Your task to perform on an android device: uninstall "Facebook Lite" Image 0: 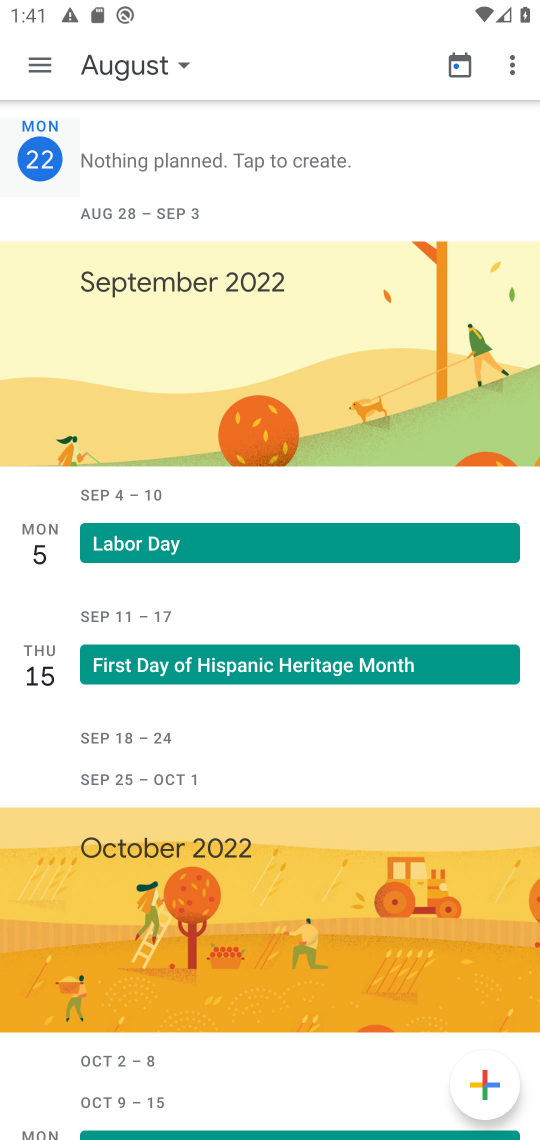
Step 0: press home button
Your task to perform on an android device: uninstall "Facebook Lite" Image 1: 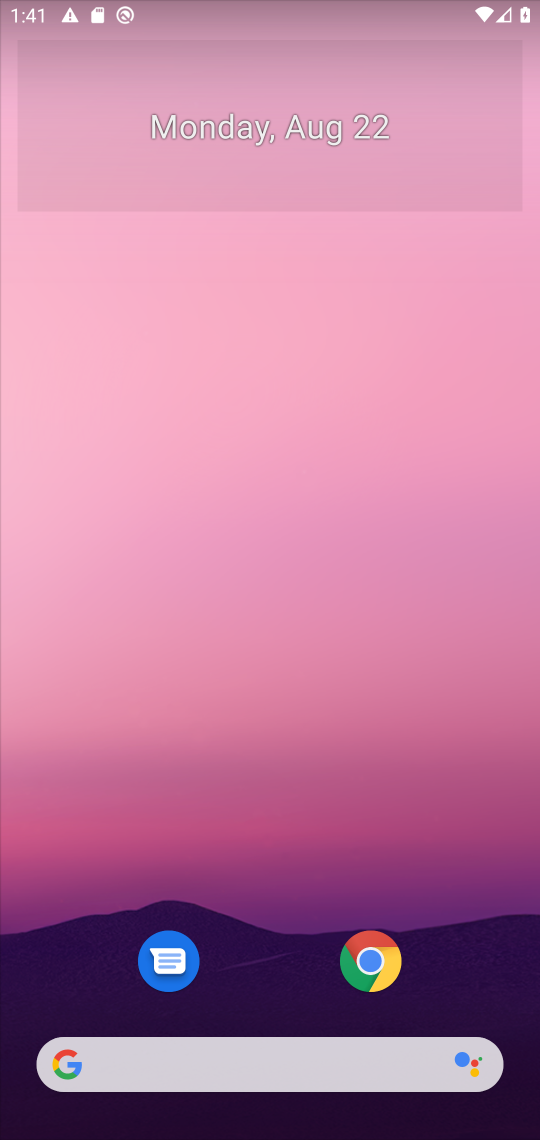
Step 1: drag from (471, 961) to (480, 127)
Your task to perform on an android device: uninstall "Facebook Lite" Image 2: 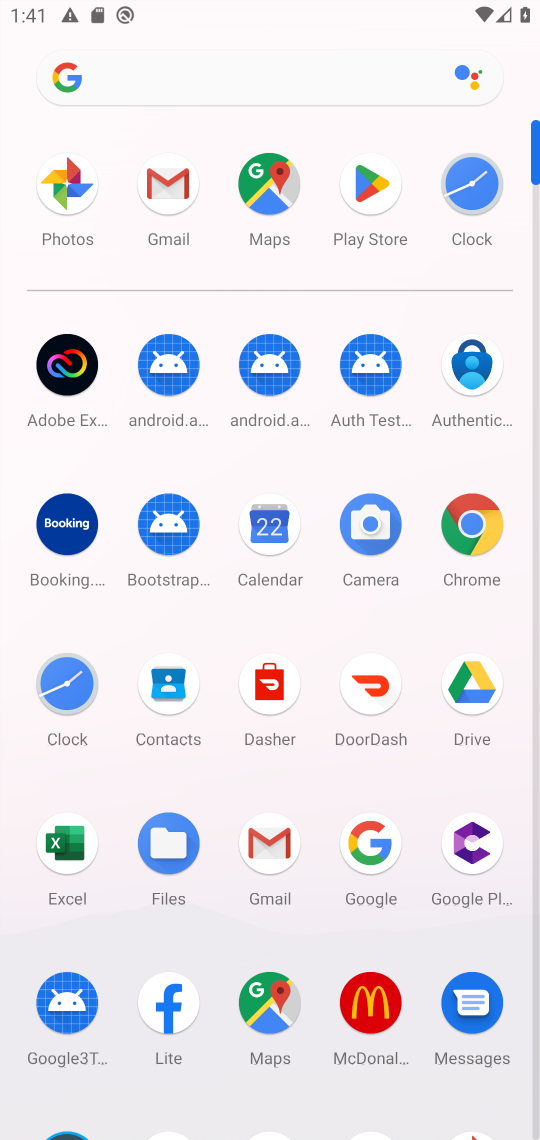
Step 2: click (369, 188)
Your task to perform on an android device: uninstall "Facebook Lite" Image 3: 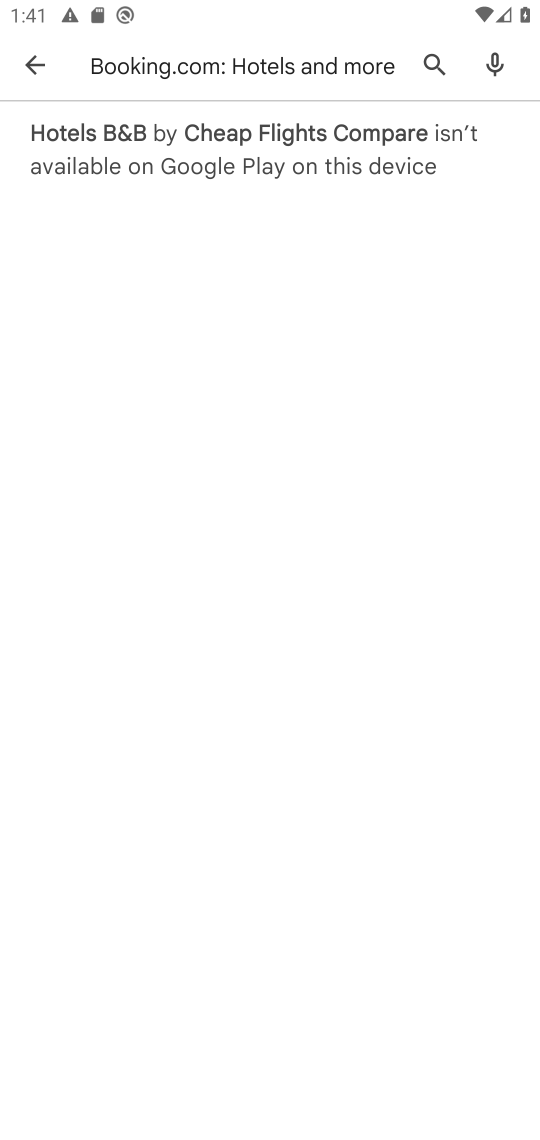
Step 3: press back button
Your task to perform on an android device: uninstall "Facebook Lite" Image 4: 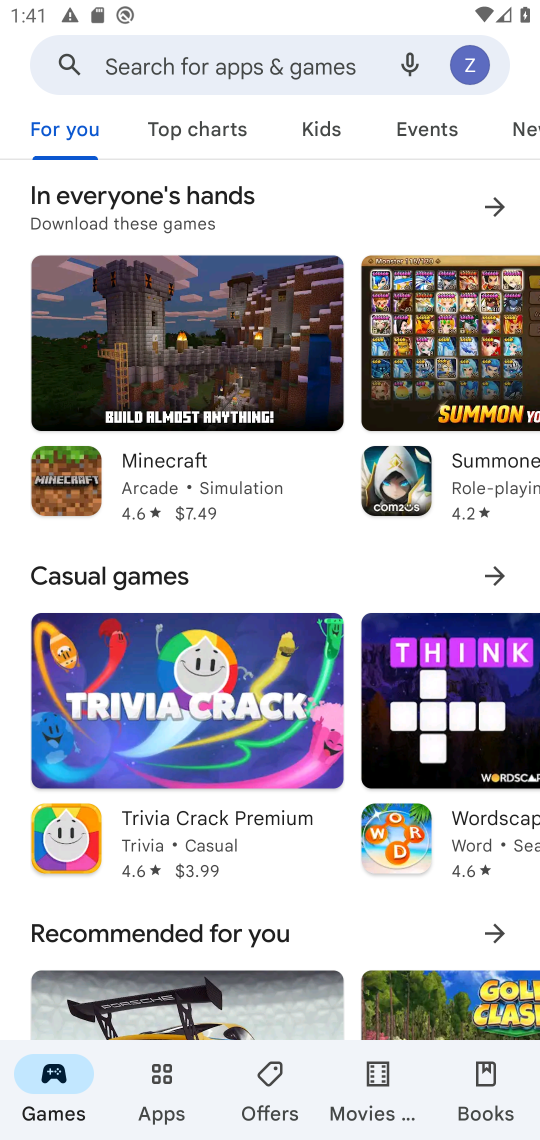
Step 4: click (296, 66)
Your task to perform on an android device: uninstall "Facebook Lite" Image 5: 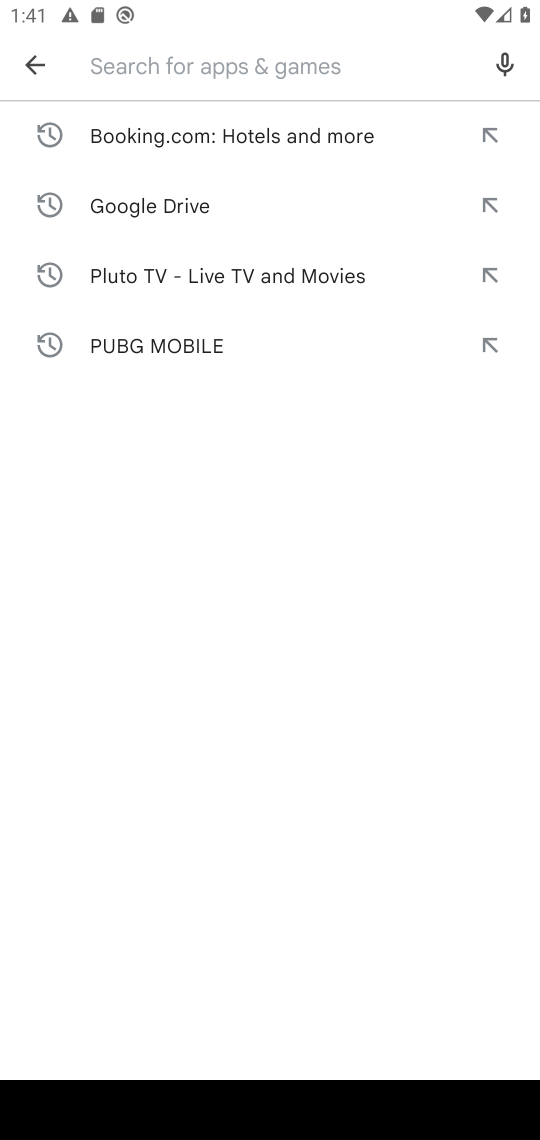
Step 5: type "facebook lite"
Your task to perform on an android device: uninstall "Facebook Lite" Image 6: 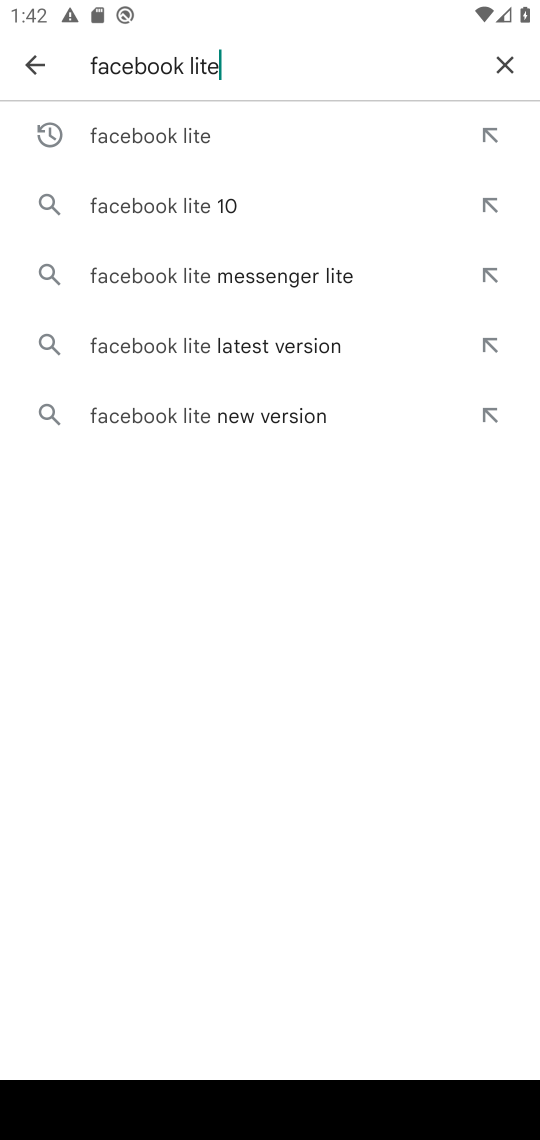
Step 6: click (225, 142)
Your task to perform on an android device: uninstall "Facebook Lite" Image 7: 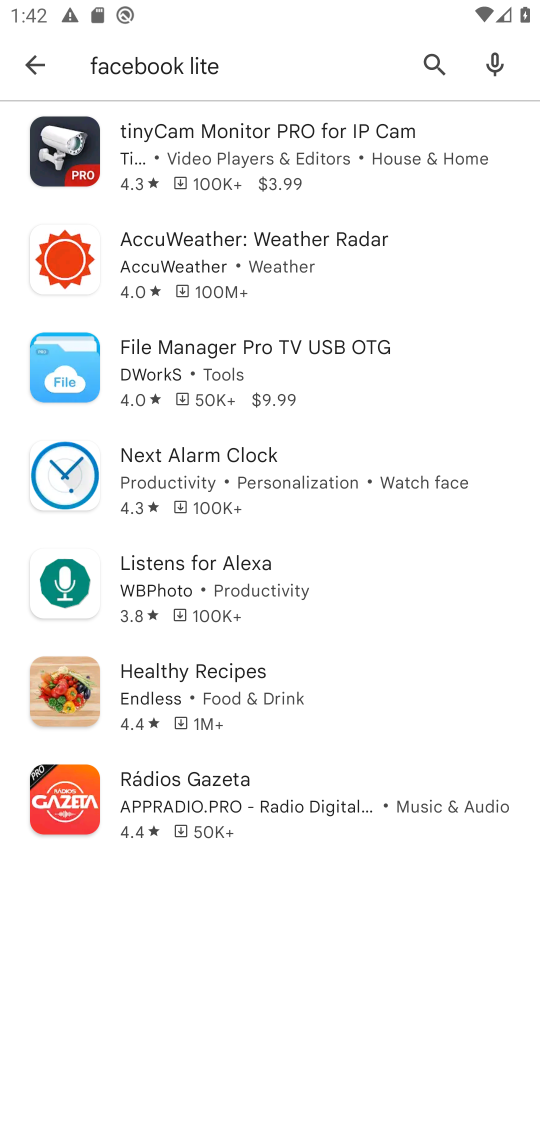
Step 7: task complete